Your task to perform on an android device: set the stopwatch Image 0: 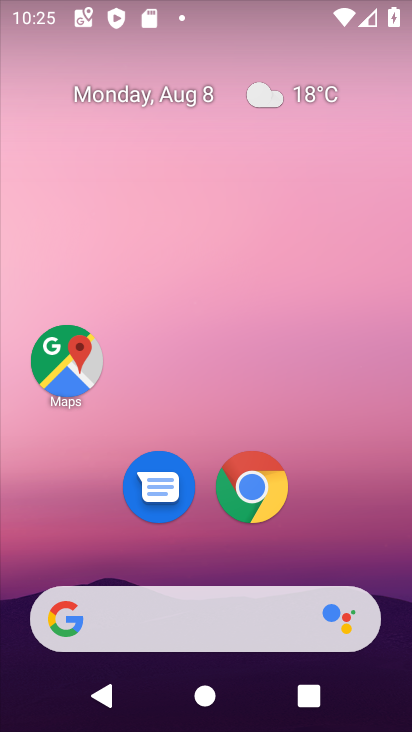
Step 0: drag from (191, 565) to (204, 121)
Your task to perform on an android device: set the stopwatch Image 1: 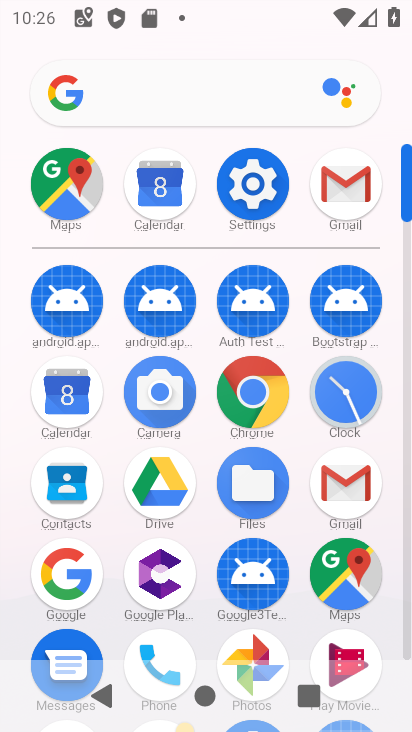
Step 1: click (342, 401)
Your task to perform on an android device: set the stopwatch Image 2: 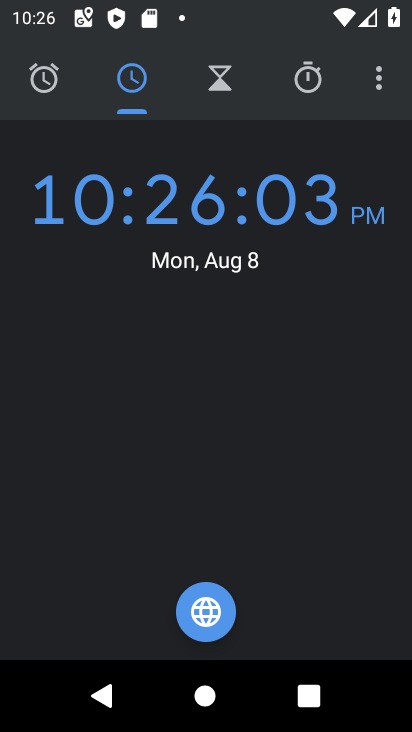
Step 2: click (305, 75)
Your task to perform on an android device: set the stopwatch Image 3: 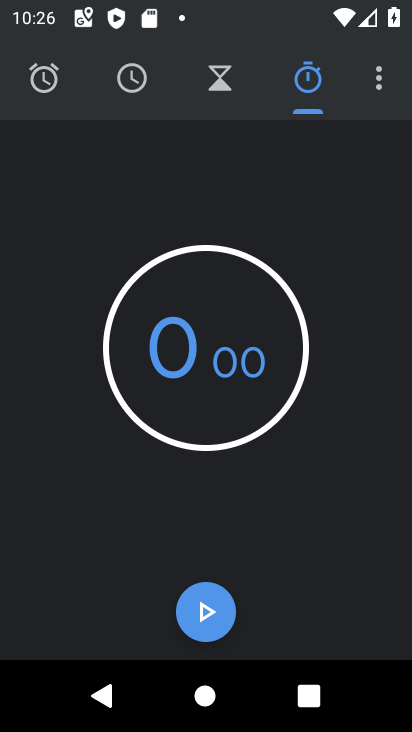
Step 3: task complete